Your task to perform on an android device: Toggle the flashlight Image 0: 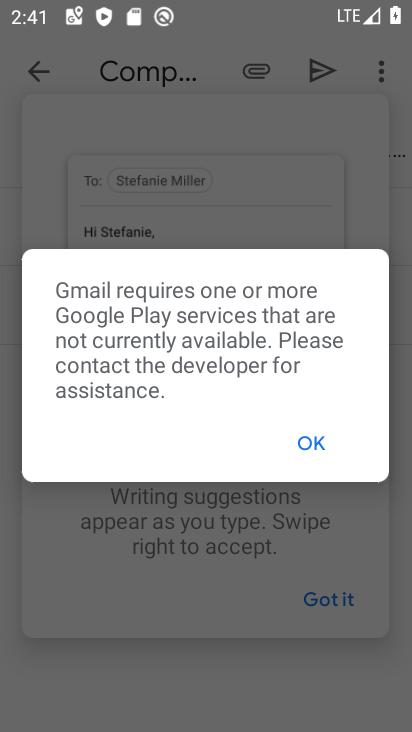
Step 0: press home button
Your task to perform on an android device: Toggle the flashlight Image 1: 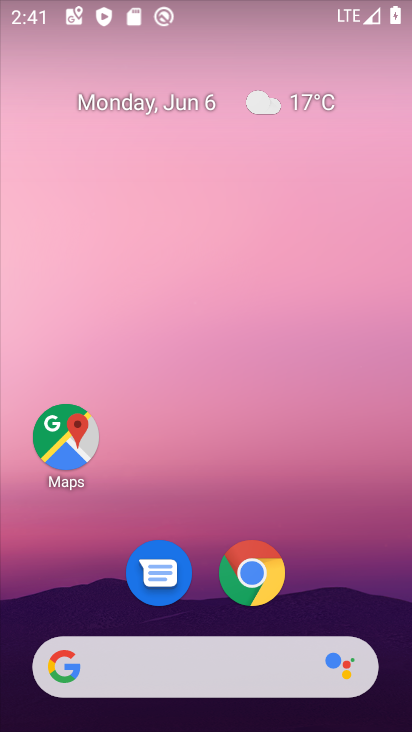
Step 1: drag from (238, 12) to (209, 407)
Your task to perform on an android device: Toggle the flashlight Image 2: 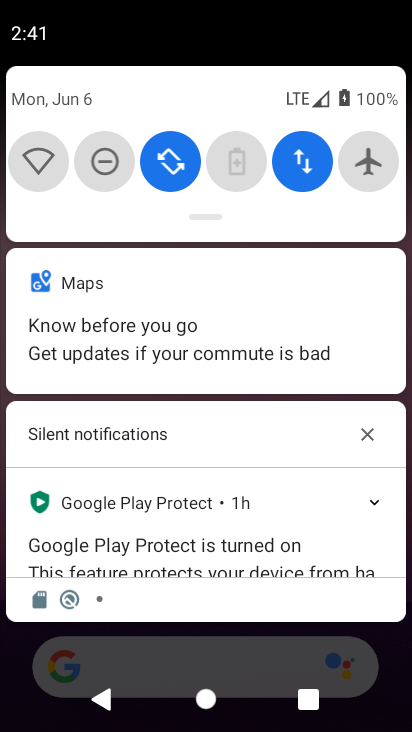
Step 2: drag from (205, 82) to (244, 349)
Your task to perform on an android device: Toggle the flashlight Image 3: 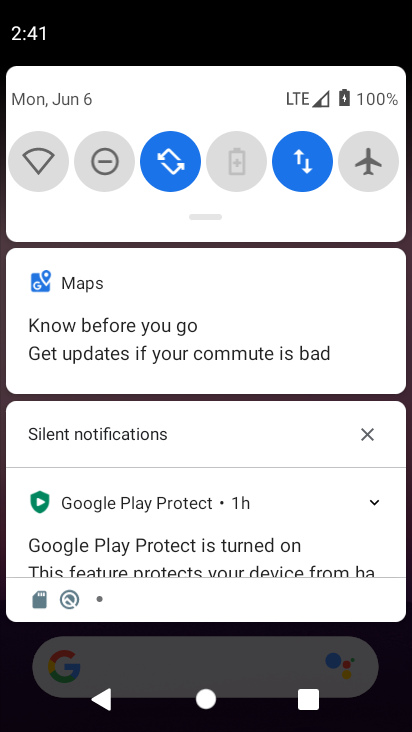
Step 3: drag from (207, 92) to (224, 373)
Your task to perform on an android device: Toggle the flashlight Image 4: 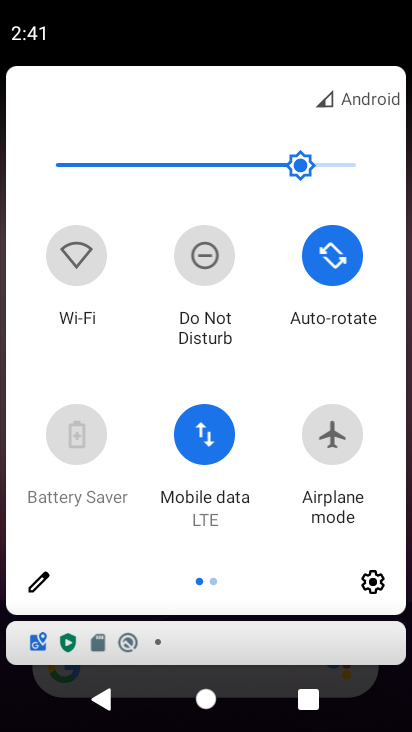
Step 4: click (39, 590)
Your task to perform on an android device: Toggle the flashlight Image 5: 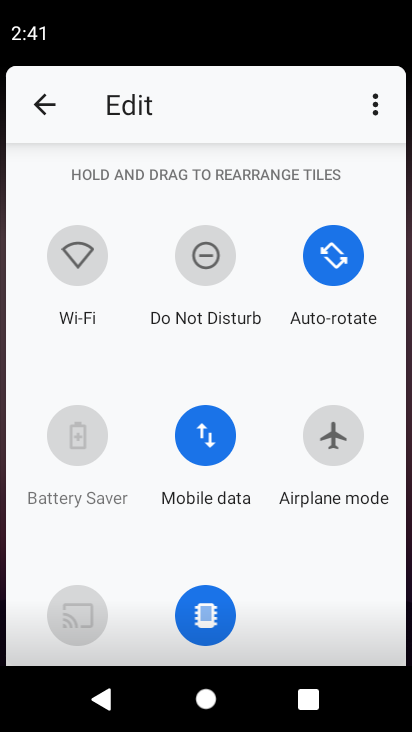
Step 5: task complete